Your task to perform on an android device: open sync settings in chrome Image 0: 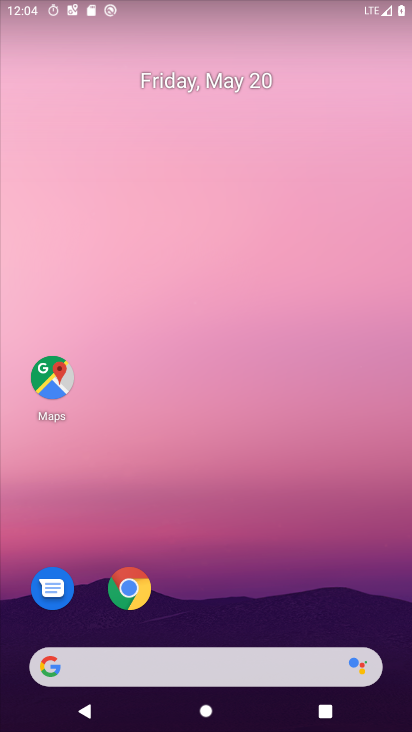
Step 0: press home button
Your task to perform on an android device: open sync settings in chrome Image 1: 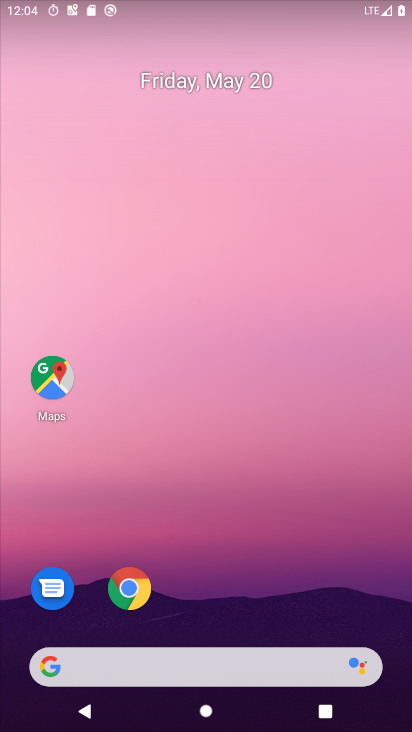
Step 1: click (132, 595)
Your task to perform on an android device: open sync settings in chrome Image 2: 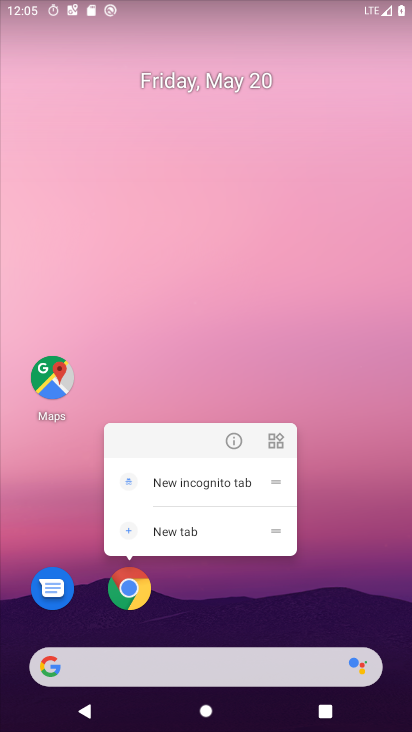
Step 2: click (138, 589)
Your task to perform on an android device: open sync settings in chrome Image 3: 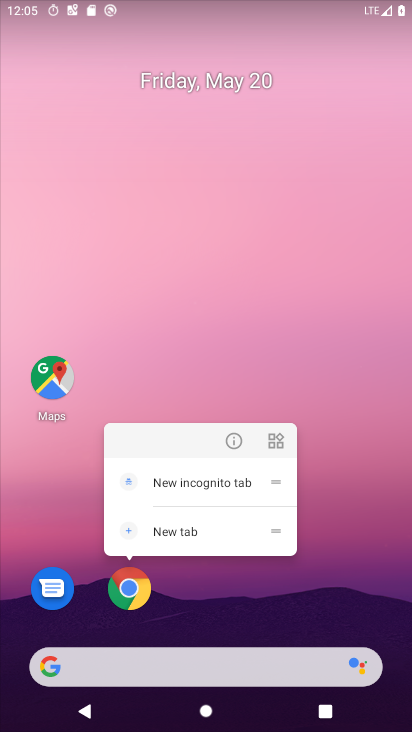
Step 3: click (138, 591)
Your task to perform on an android device: open sync settings in chrome Image 4: 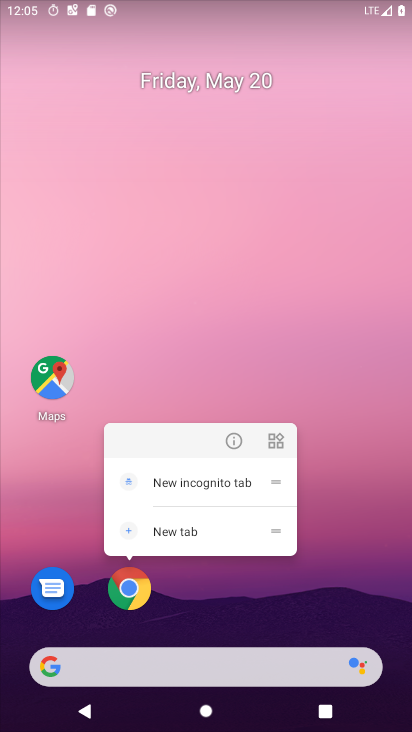
Step 4: click (135, 594)
Your task to perform on an android device: open sync settings in chrome Image 5: 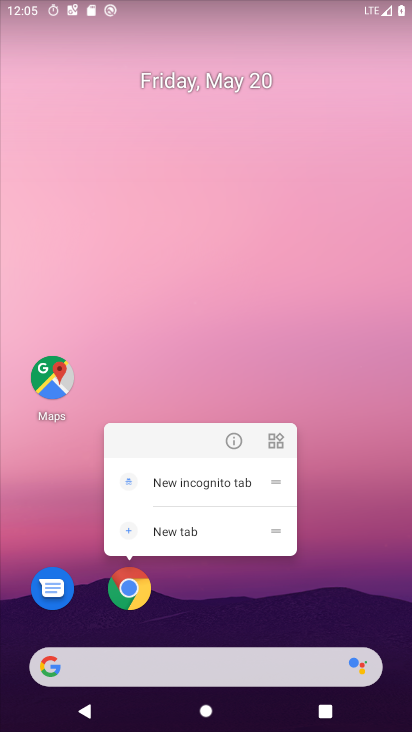
Step 5: click (143, 595)
Your task to perform on an android device: open sync settings in chrome Image 6: 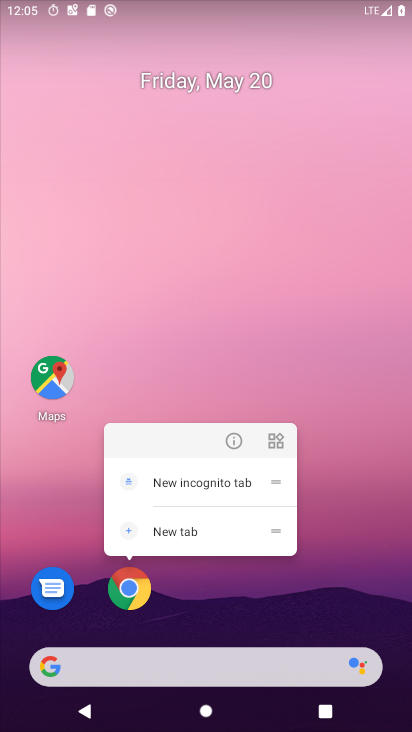
Step 6: click (133, 595)
Your task to perform on an android device: open sync settings in chrome Image 7: 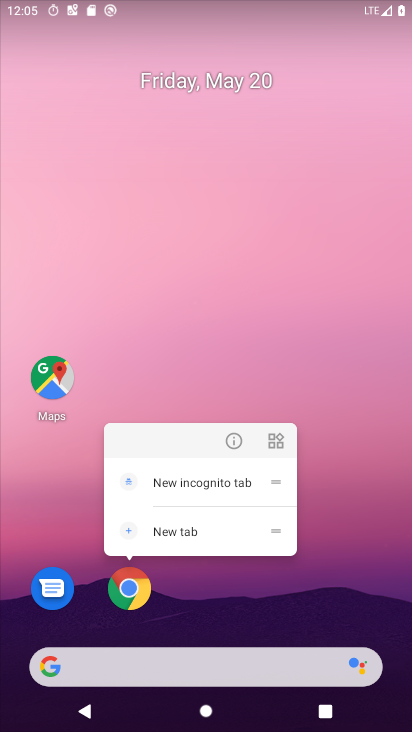
Step 7: click (128, 592)
Your task to perform on an android device: open sync settings in chrome Image 8: 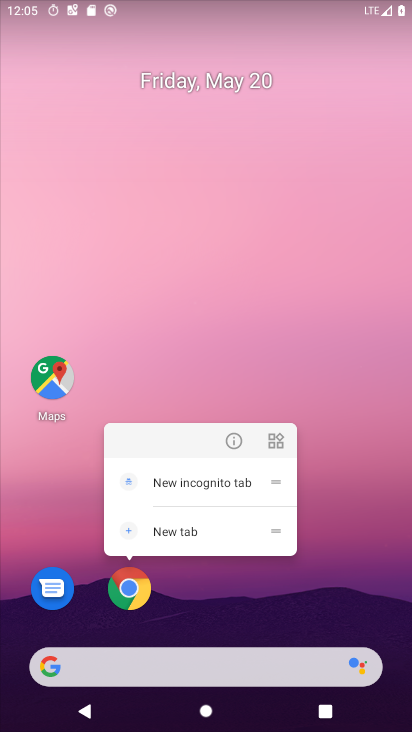
Step 8: click (126, 600)
Your task to perform on an android device: open sync settings in chrome Image 9: 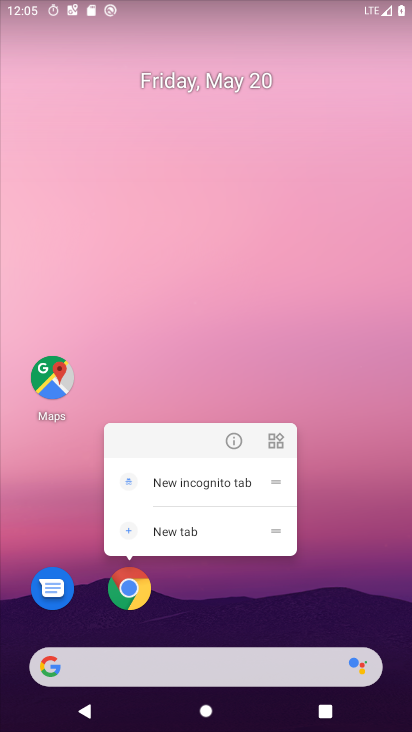
Step 9: click (123, 588)
Your task to perform on an android device: open sync settings in chrome Image 10: 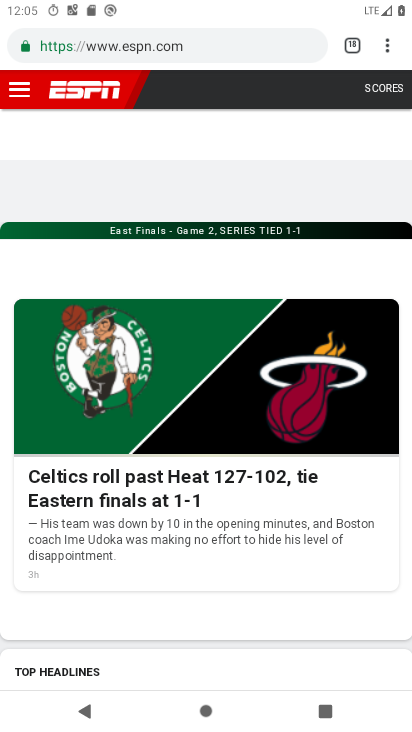
Step 10: drag from (386, 54) to (225, 546)
Your task to perform on an android device: open sync settings in chrome Image 11: 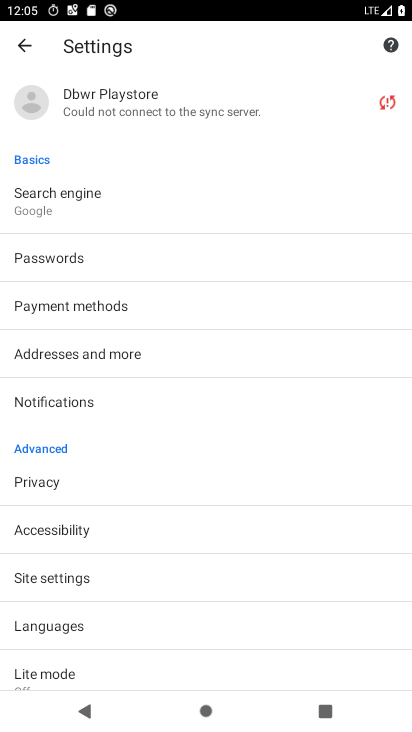
Step 11: click (202, 104)
Your task to perform on an android device: open sync settings in chrome Image 12: 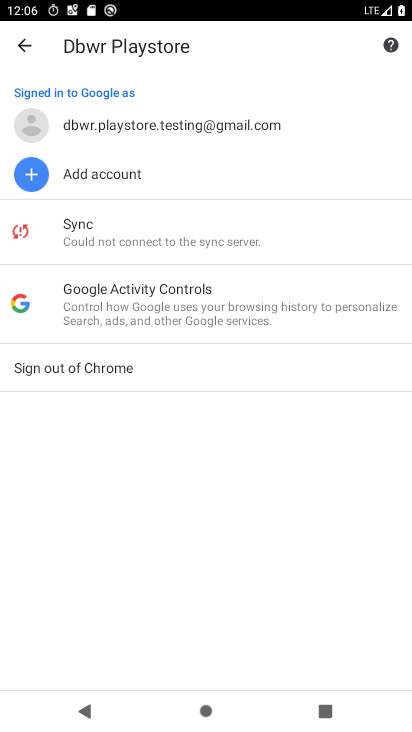
Step 12: click (238, 239)
Your task to perform on an android device: open sync settings in chrome Image 13: 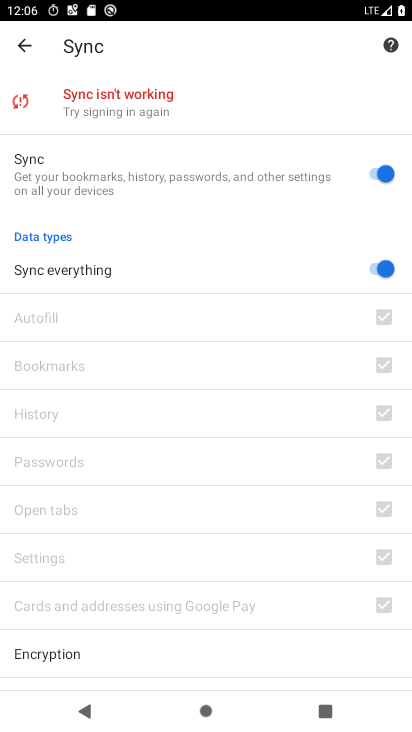
Step 13: task complete